Your task to perform on an android device: turn off priority inbox in the gmail app Image 0: 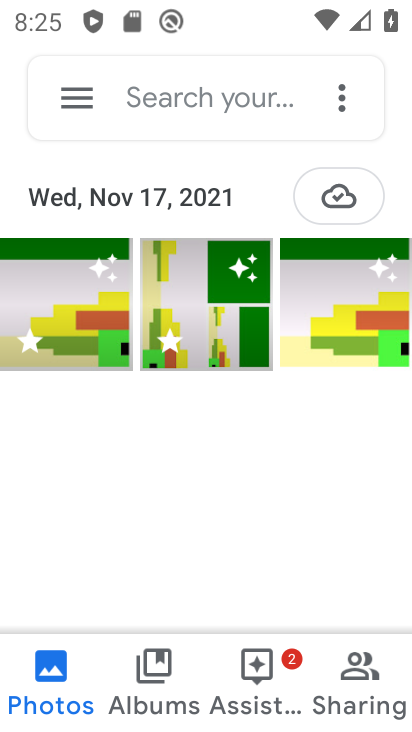
Step 0: press home button
Your task to perform on an android device: turn off priority inbox in the gmail app Image 1: 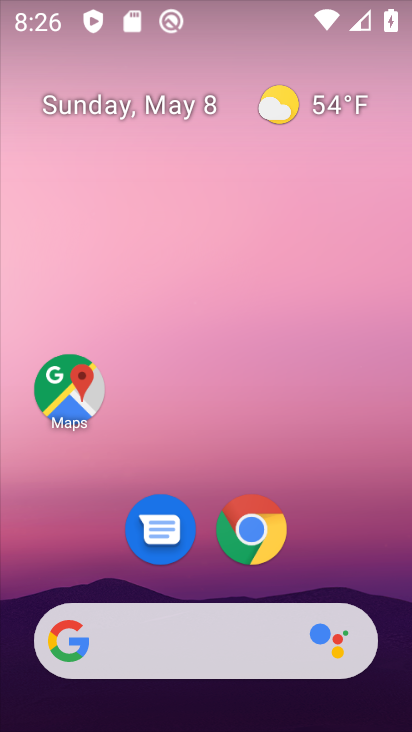
Step 1: drag from (375, 563) to (371, 139)
Your task to perform on an android device: turn off priority inbox in the gmail app Image 2: 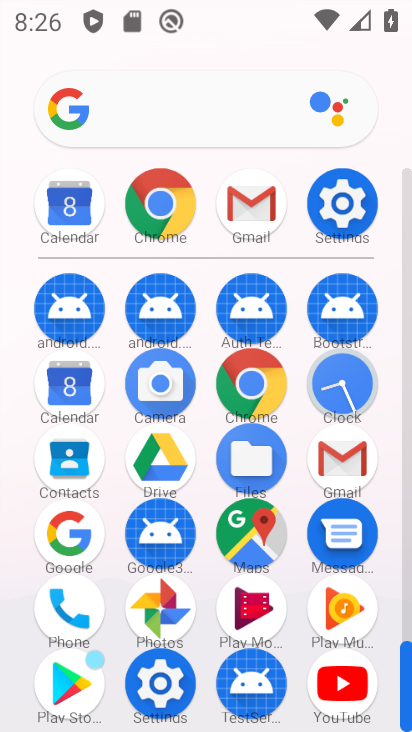
Step 2: click (240, 215)
Your task to perform on an android device: turn off priority inbox in the gmail app Image 3: 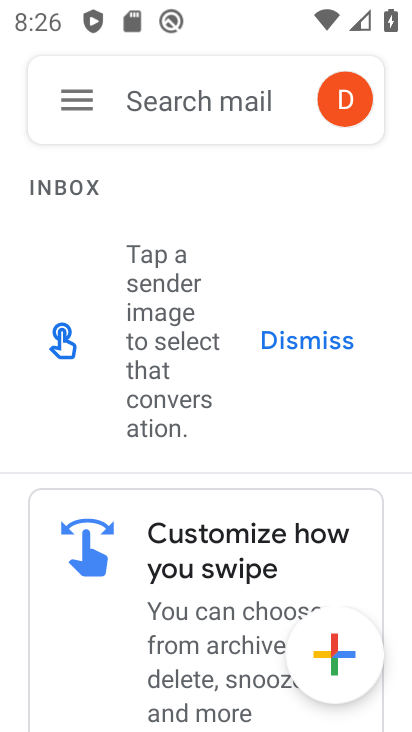
Step 3: click (85, 97)
Your task to perform on an android device: turn off priority inbox in the gmail app Image 4: 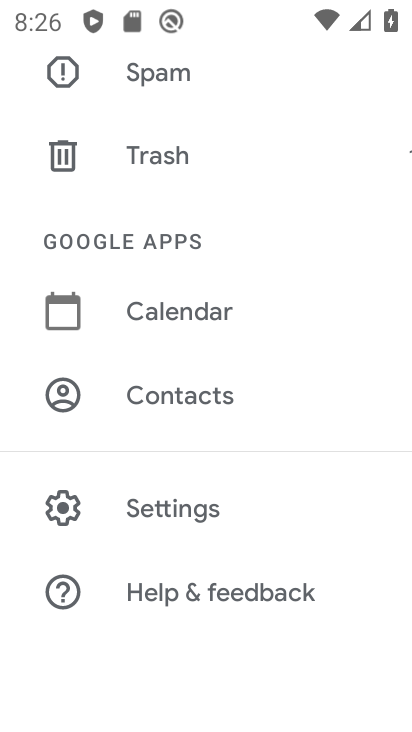
Step 4: drag from (154, 102) to (159, 619)
Your task to perform on an android device: turn off priority inbox in the gmail app Image 5: 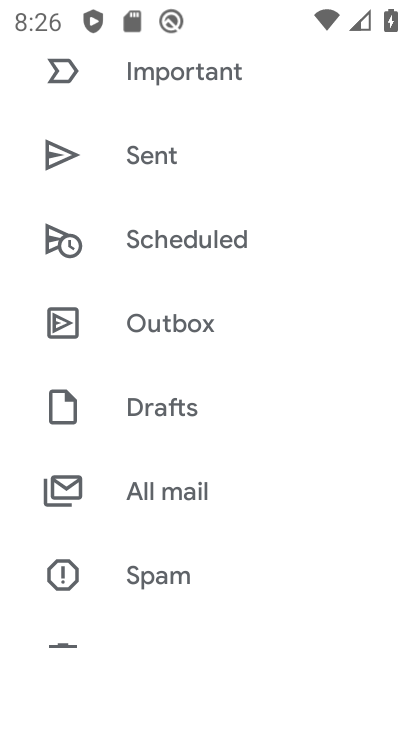
Step 5: drag from (222, 193) to (239, 562)
Your task to perform on an android device: turn off priority inbox in the gmail app Image 6: 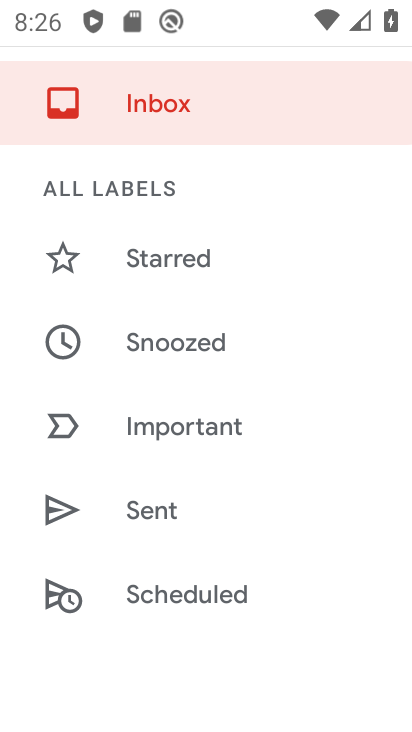
Step 6: drag from (297, 141) to (268, 521)
Your task to perform on an android device: turn off priority inbox in the gmail app Image 7: 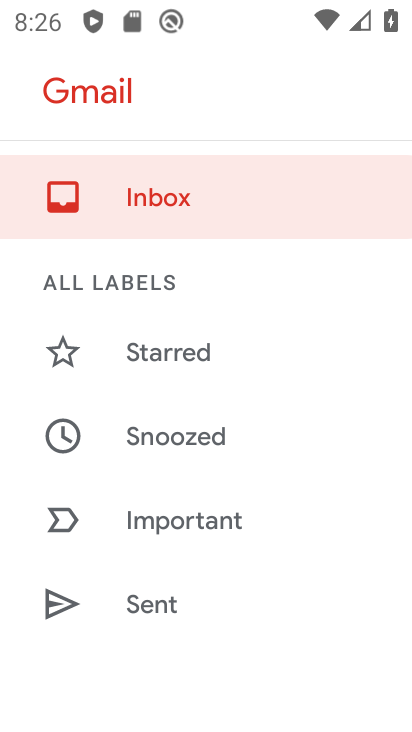
Step 7: drag from (253, 593) to (261, 150)
Your task to perform on an android device: turn off priority inbox in the gmail app Image 8: 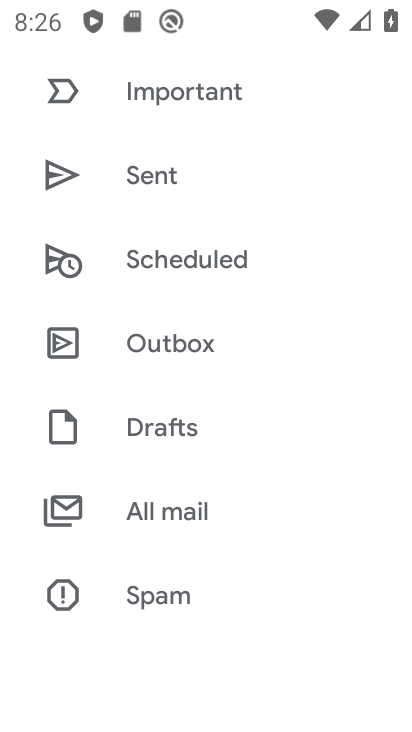
Step 8: drag from (240, 578) to (262, 172)
Your task to perform on an android device: turn off priority inbox in the gmail app Image 9: 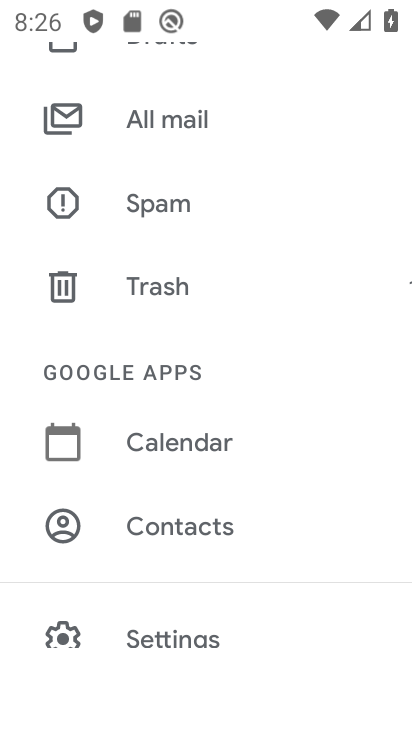
Step 9: click (198, 631)
Your task to perform on an android device: turn off priority inbox in the gmail app Image 10: 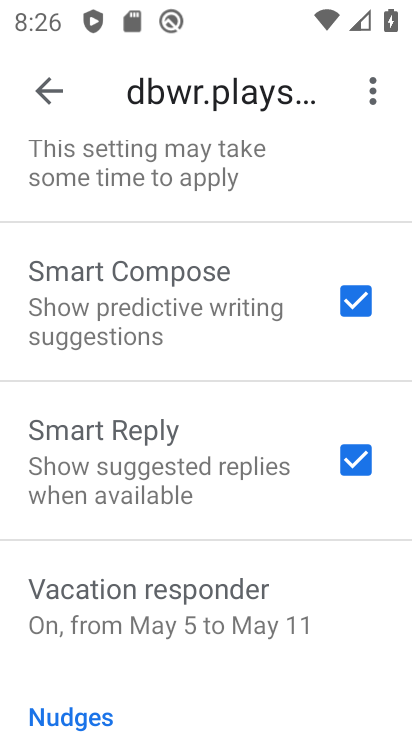
Step 10: task complete